Your task to perform on an android device: Go to location settings Image 0: 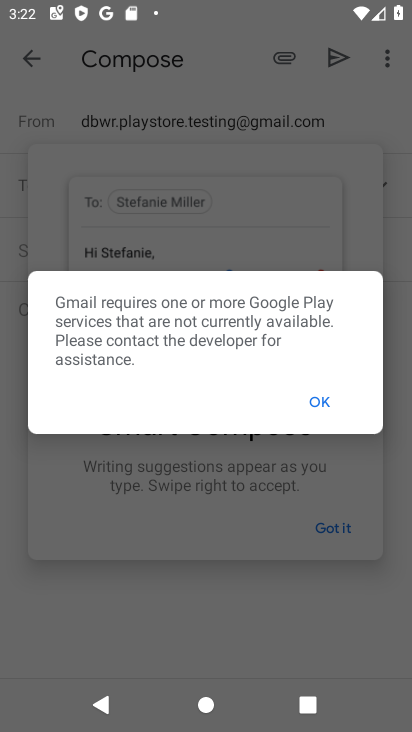
Step 0: press home button
Your task to perform on an android device: Go to location settings Image 1: 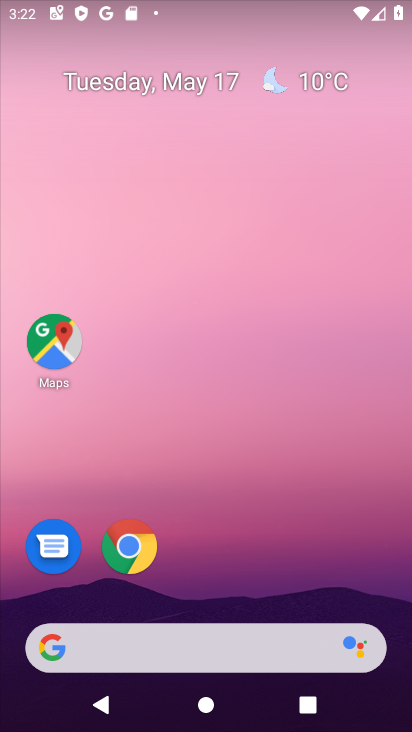
Step 1: drag from (209, 574) to (288, 108)
Your task to perform on an android device: Go to location settings Image 2: 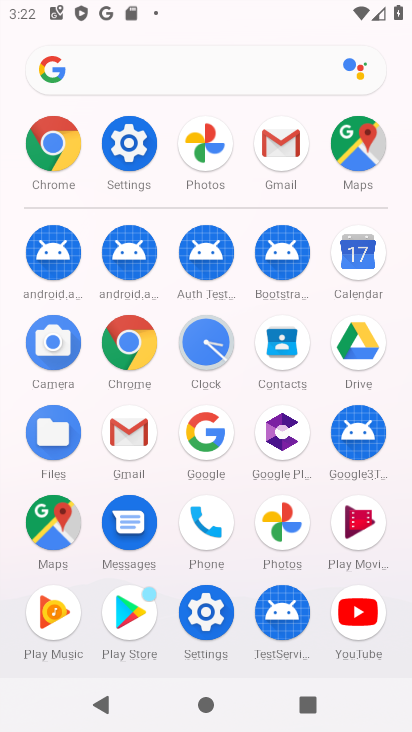
Step 2: click (199, 627)
Your task to perform on an android device: Go to location settings Image 3: 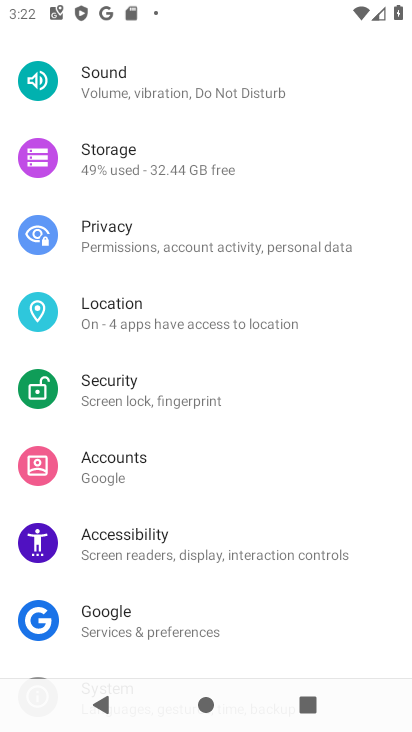
Step 3: click (196, 319)
Your task to perform on an android device: Go to location settings Image 4: 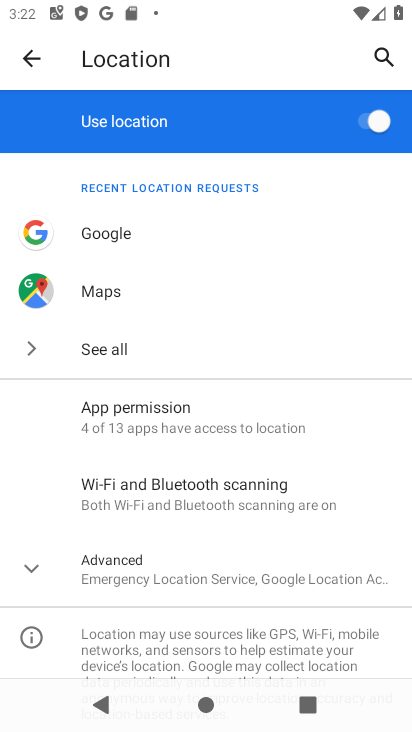
Step 4: task complete